Your task to perform on an android device: Go to privacy settings Image 0: 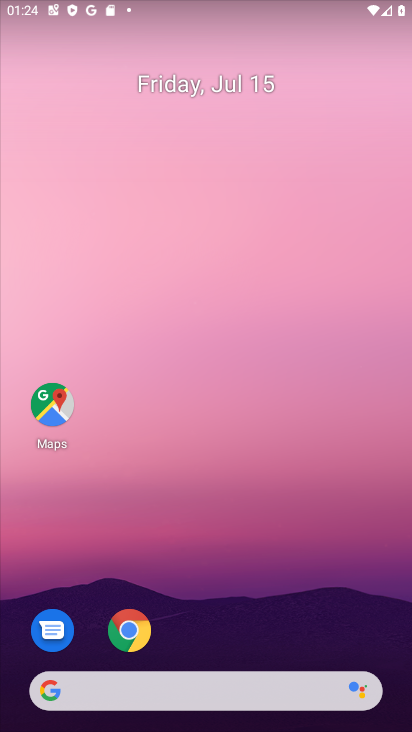
Step 0: drag from (325, 640) to (261, 187)
Your task to perform on an android device: Go to privacy settings Image 1: 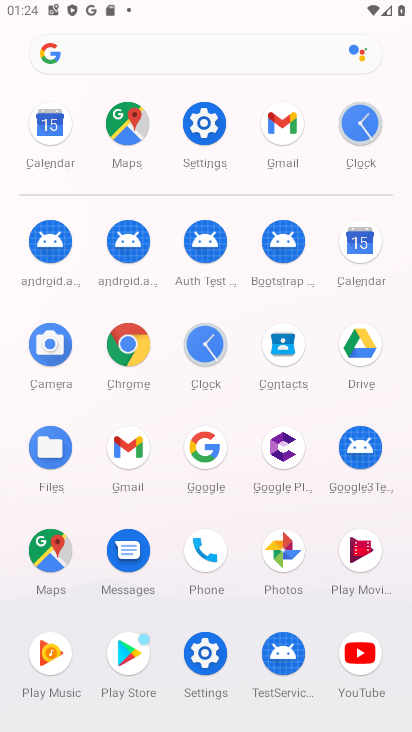
Step 1: click (210, 159)
Your task to perform on an android device: Go to privacy settings Image 2: 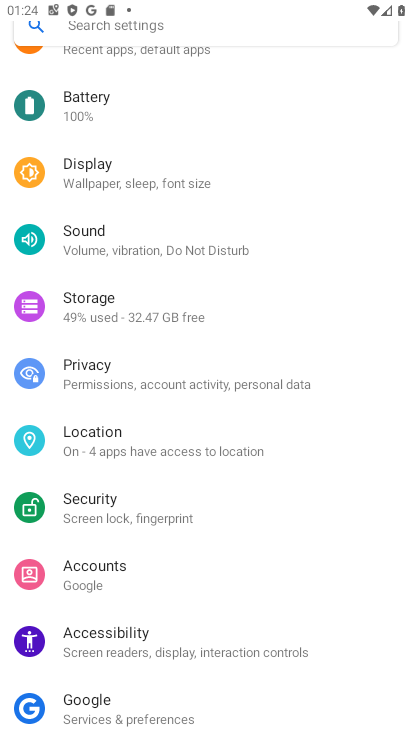
Step 2: click (165, 390)
Your task to perform on an android device: Go to privacy settings Image 3: 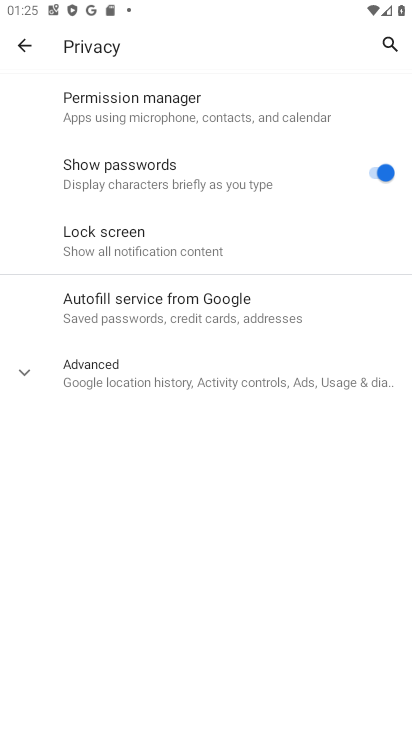
Step 3: press home button
Your task to perform on an android device: Go to privacy settings Image 4: 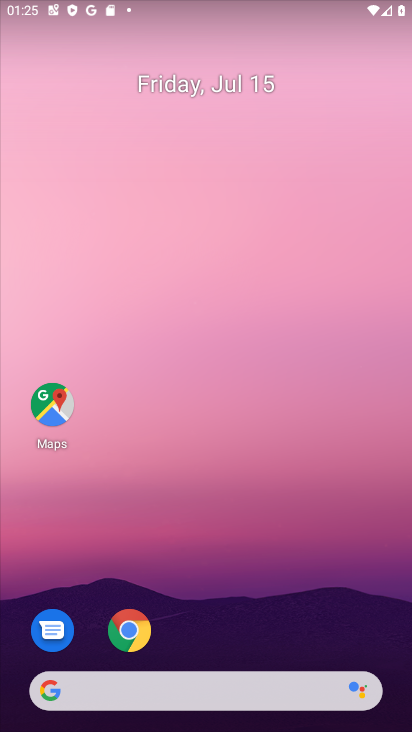
Step 4: drag from (237, 635) to (299, 90)
Your task to perform on an android device: Go to privacy settings Image 5: 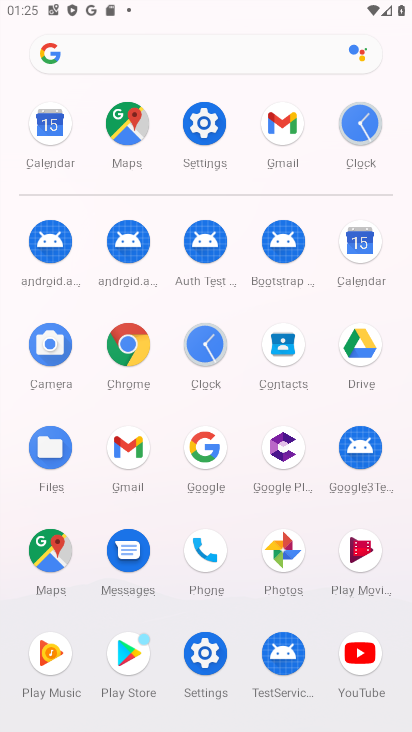
Step 5: click (210, 138)
Your task to perform on an android device: Go to privacy settings Image 6: 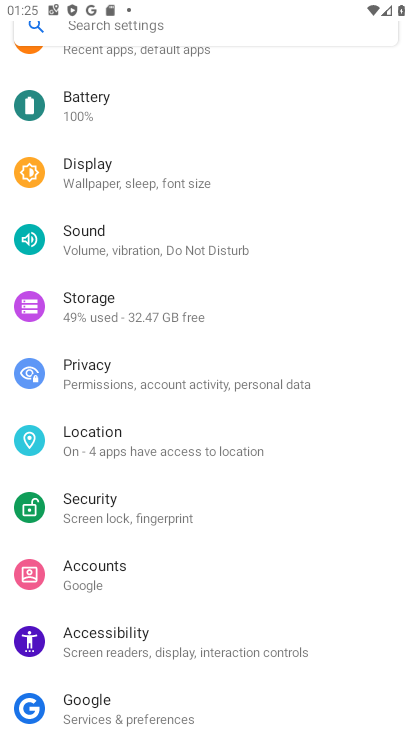
Step 6: click (188, 401)
Your task to perform on an android device: Go to privacy settings Image 7: 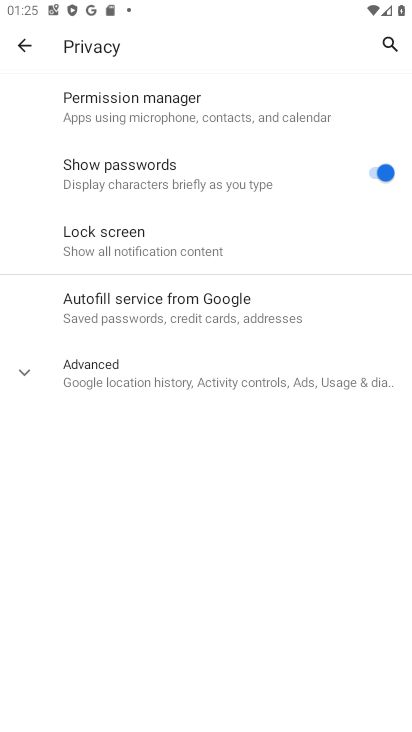
Step 7: task complete